Your task to perform on an android device: set default search engine in the chrome app Image 0: 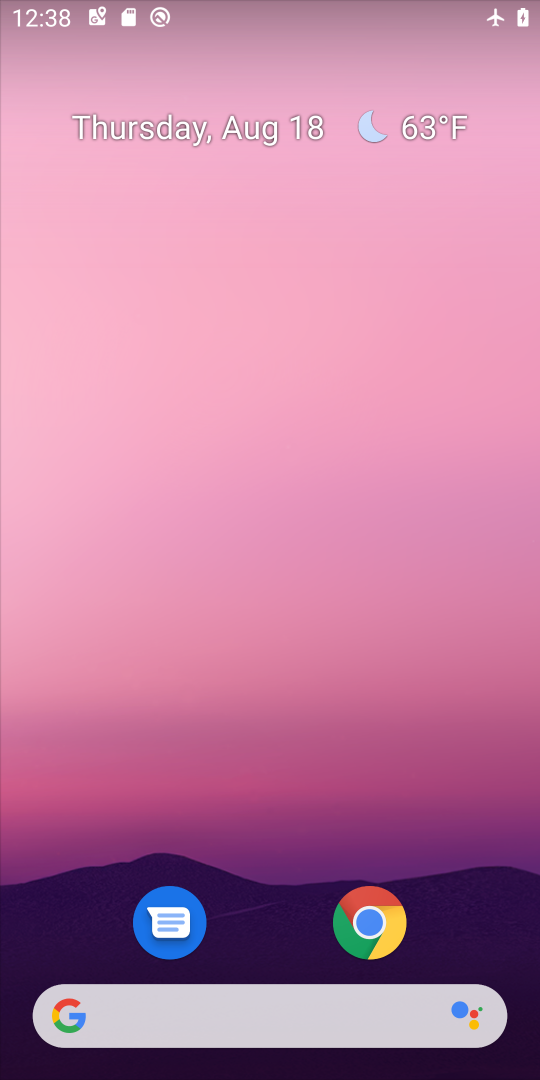
Step 0: click (373, 928)
Your task to perform on an android device: set default search engine in the chrome app Image 1: 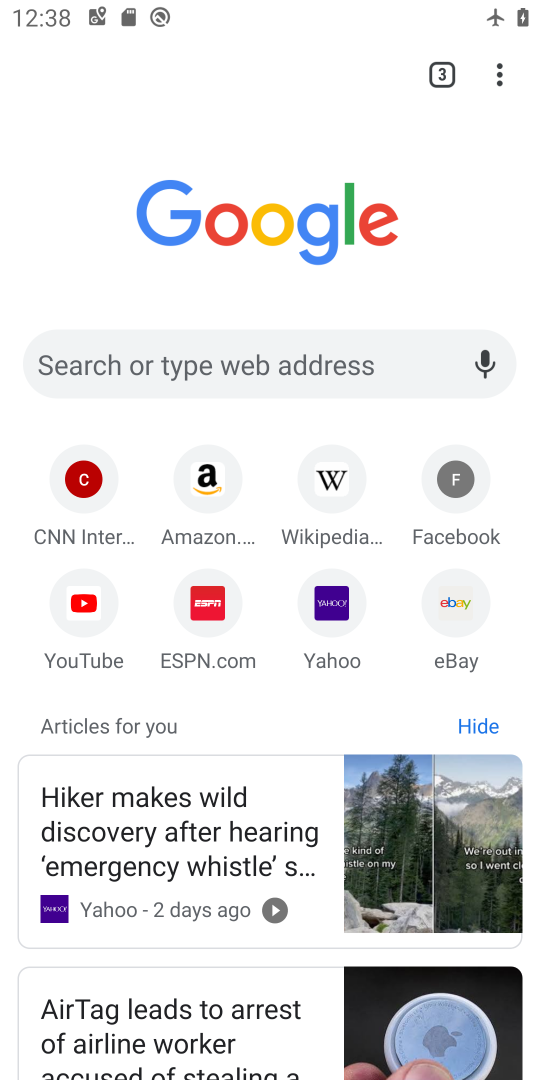
Step 1: click (500, 71)
Your task to perform on an android device: set default search engine in the chrome app Image 2: 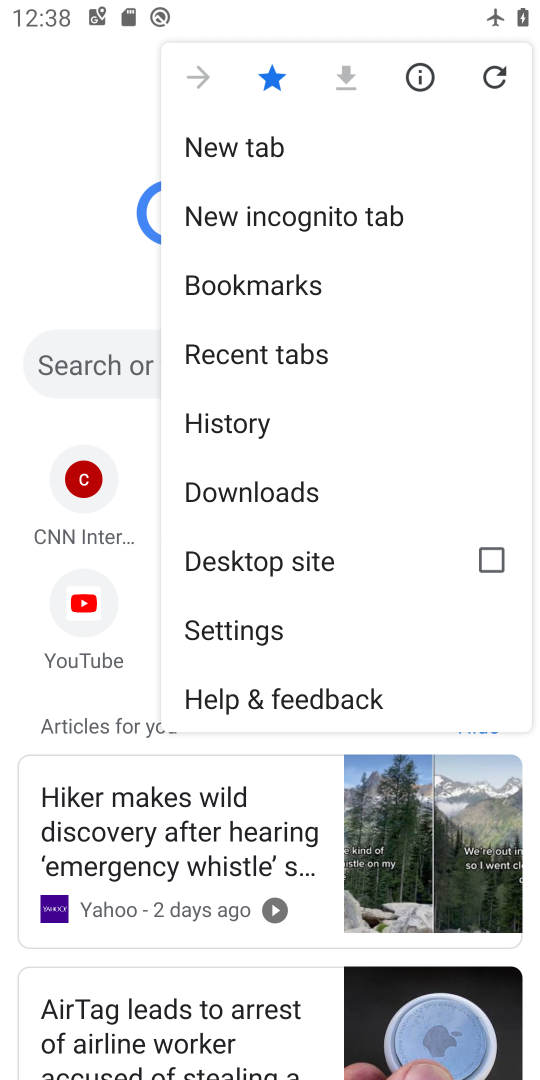
Step 2: click (237, 626)
Your task to perform on an android device: set default search engine in the chrome app Image 3: 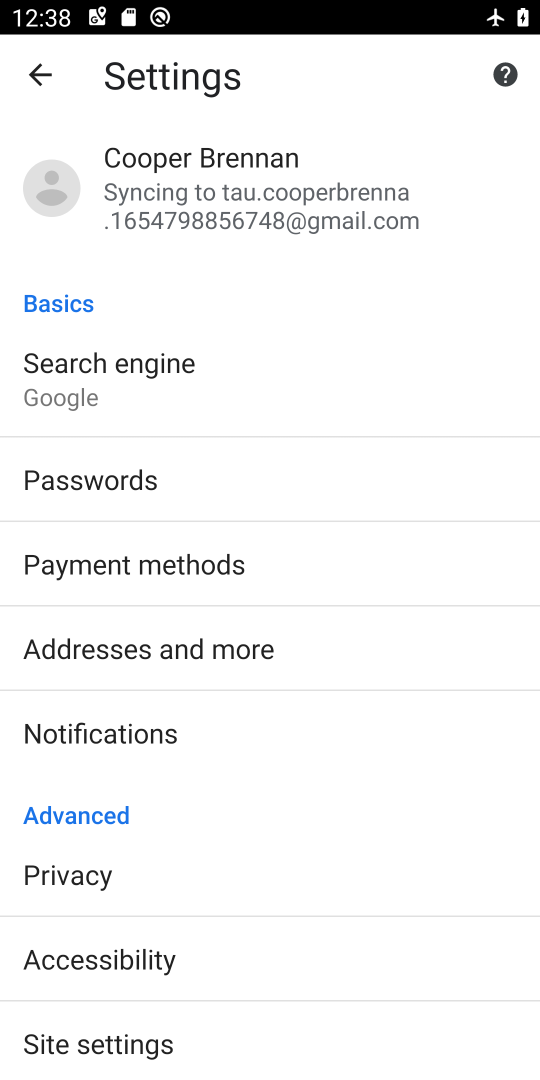
Step 3: click (104, 358)
Your task to perform on an android device: set default search engine in the chrome app Image 4: 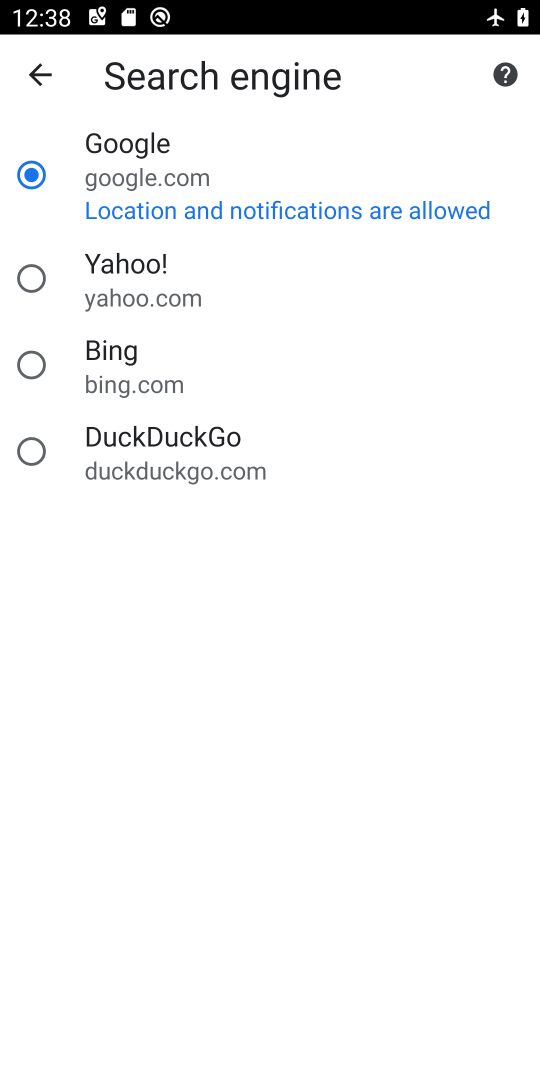
Step 4: task complete